Your task to perform on an android device: open app "DuckDuckGo Privacy Browser" (install if not already installed) and go to login screen Image 0: 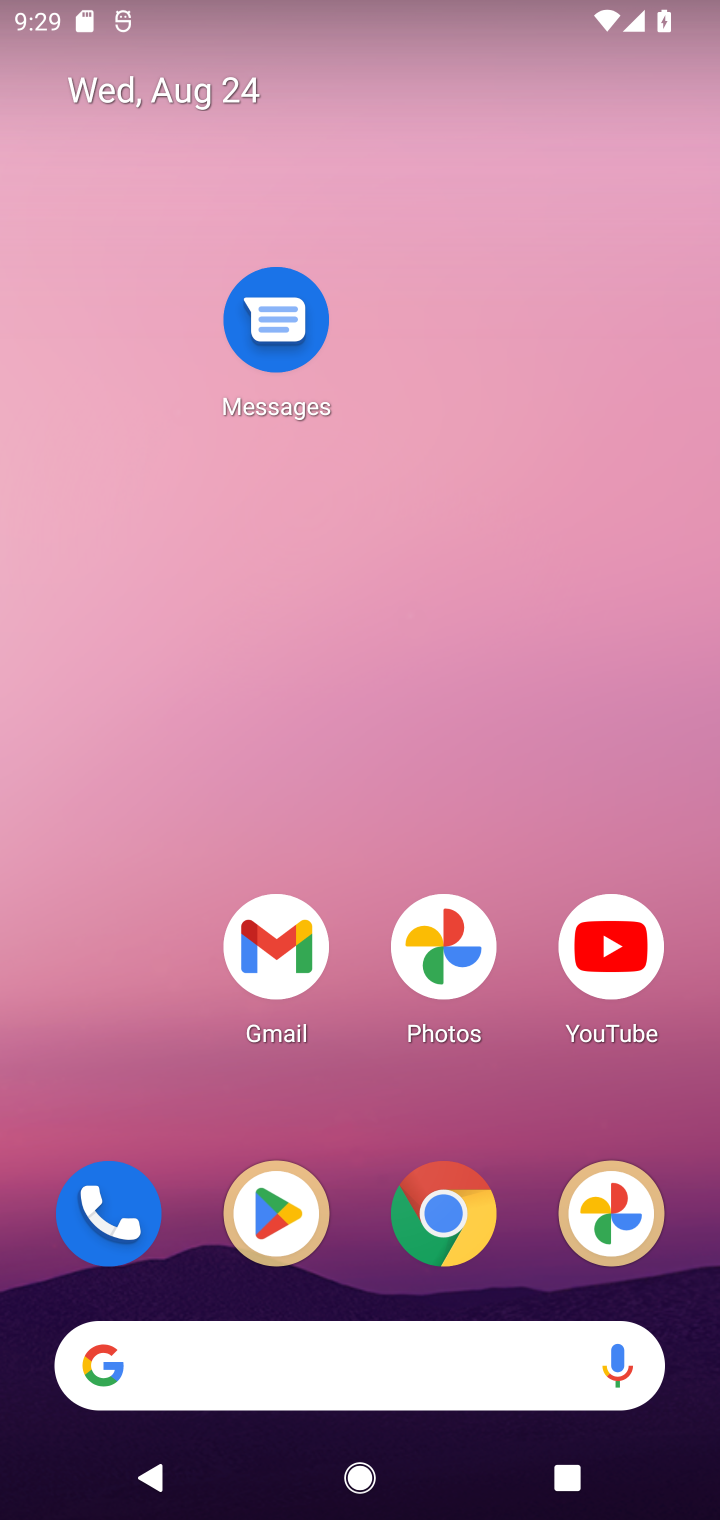
Step 0: click (254, 1208)
Your task to perform on an android device: open app "DuckDuckGo Privacy Browser" (install if not already installed) and go to login screen Image 1: 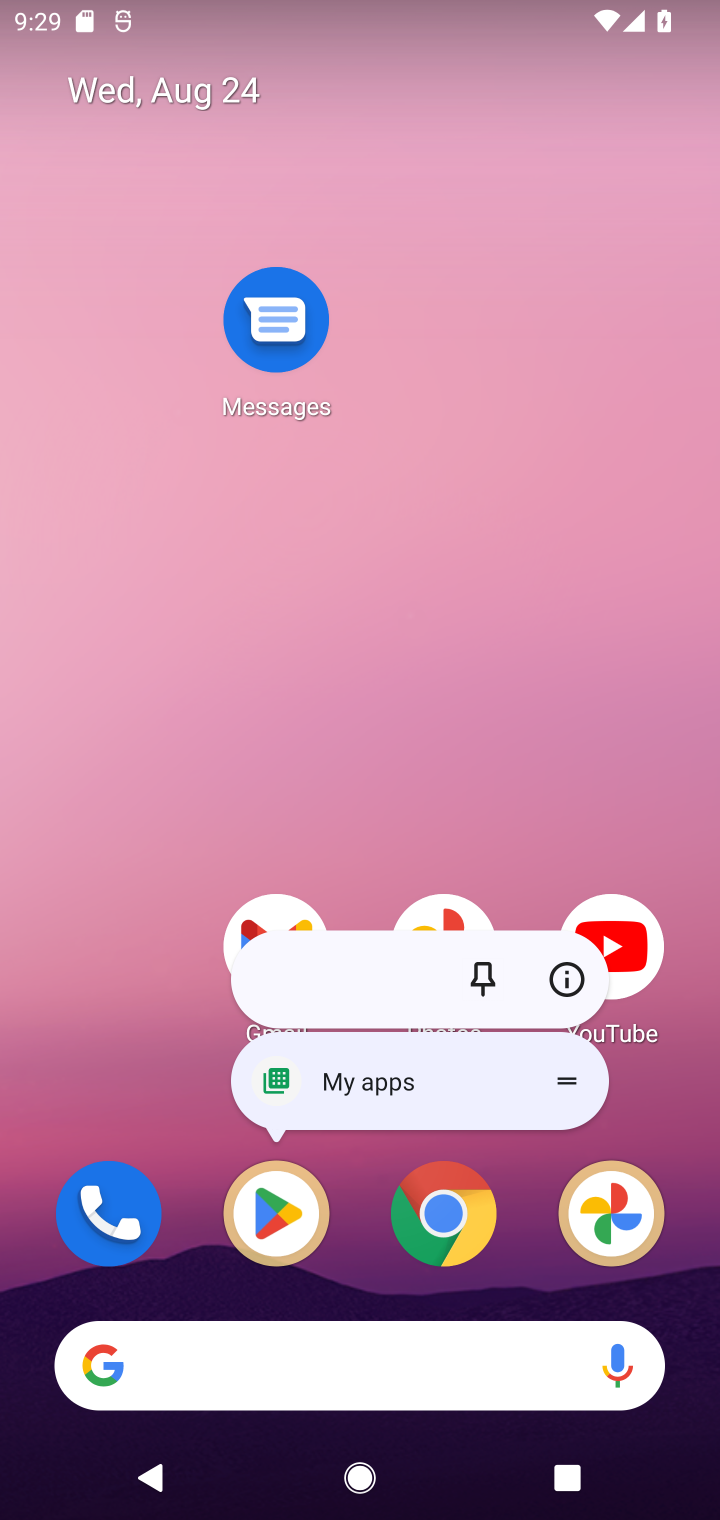
Step 1: click (266, 1198)
Your task to perform on an android device: open app "DuckDuckGo Privacy Browser" (install if not already installed) and go to login screen Image 2: 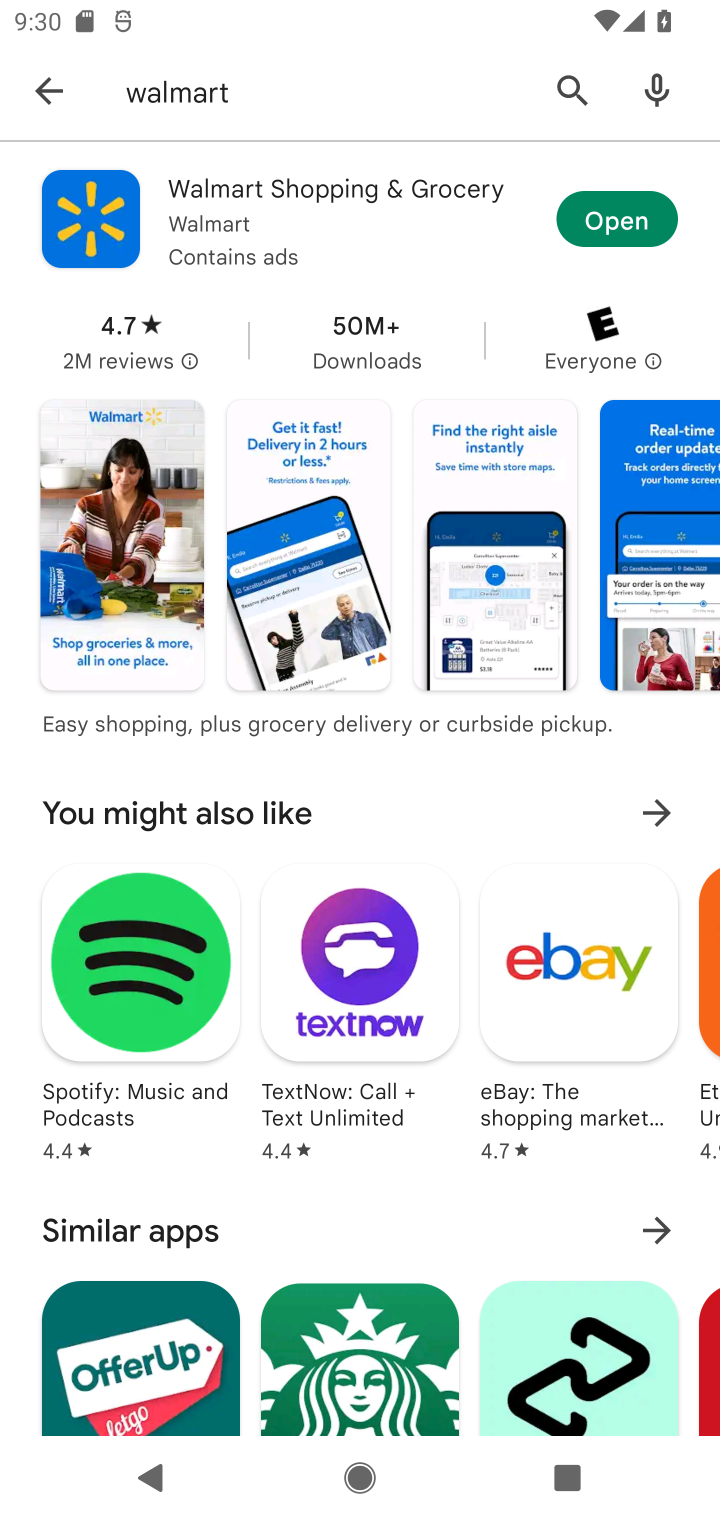
Step 2: click (294, 88)
Your task to perform on an android device: open app "DuckDuckGo Privacy Browser" (install if not already installed) and go to login screen Image 3: 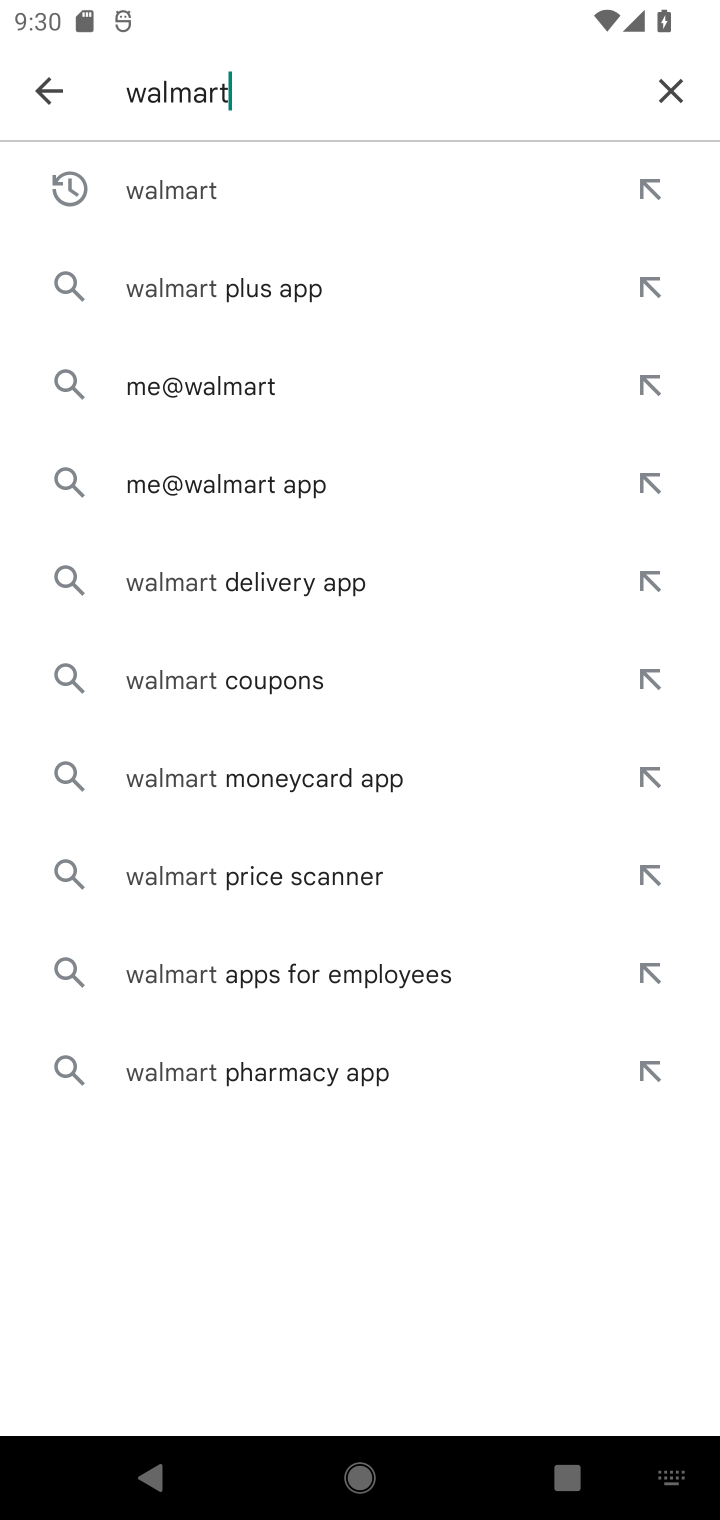
Step 3: click (664, 78)
Your task to perform on an android device: open app "DuckDuckGo Privacy Browser" (install if not already installed) and go to login screen Image 4: 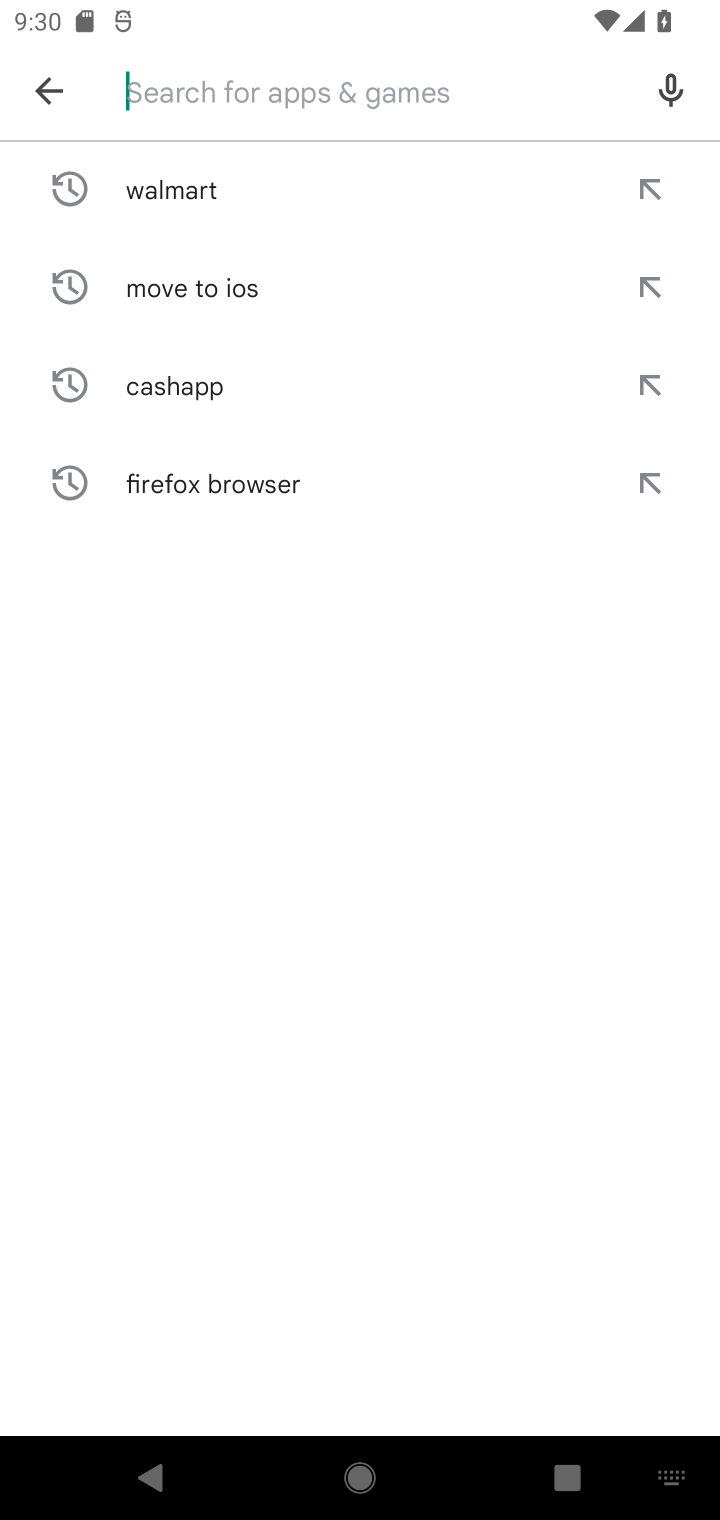
Step 4: type "duckduckgo"
Your task to perform on an android device: open app "DuckDuckGo Privacy Browser" (install if not already installed) and go to login screen Image 5: 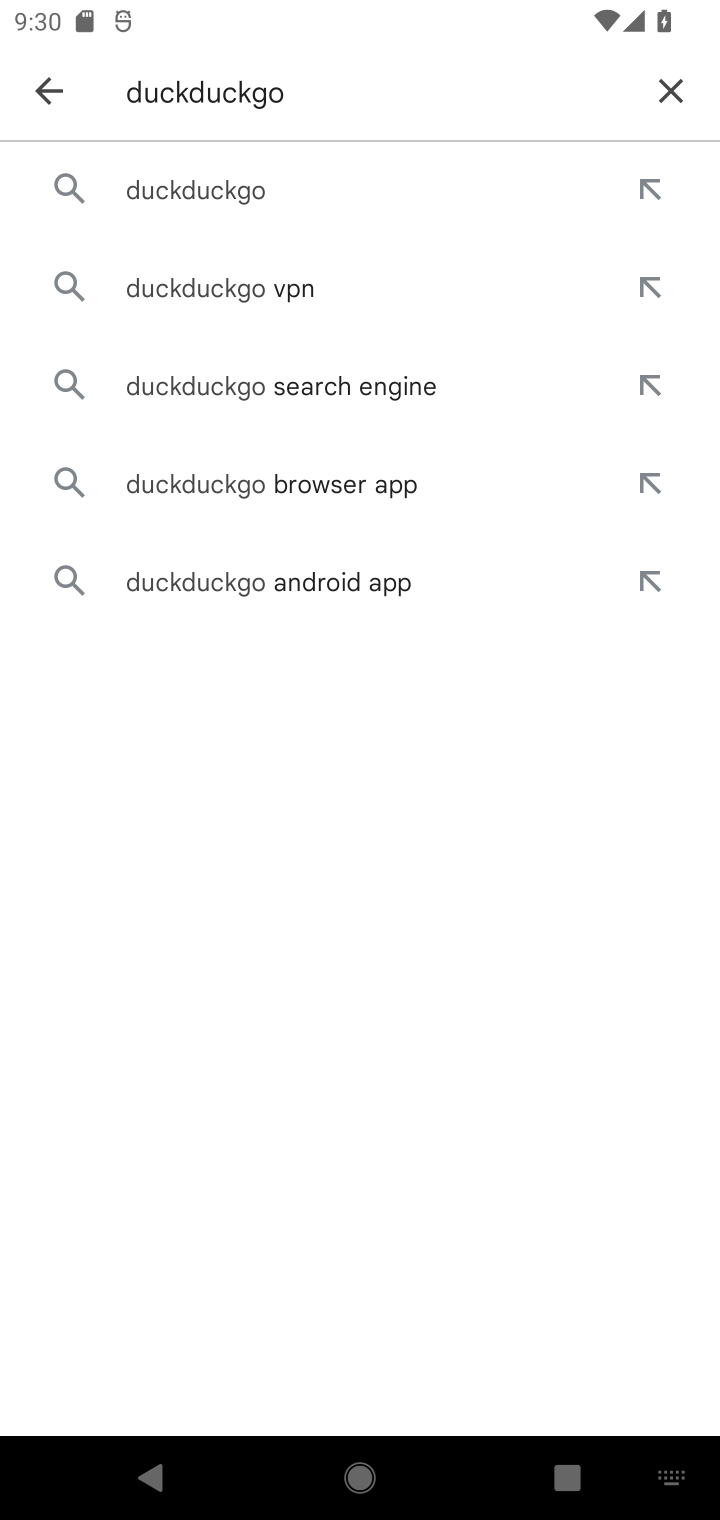
Step 5: click (211, 193)
Your task to perform on an android device: open app "DuckDuckGo Privacy Browser" (install if not already installed) and go to login screen Image 6: 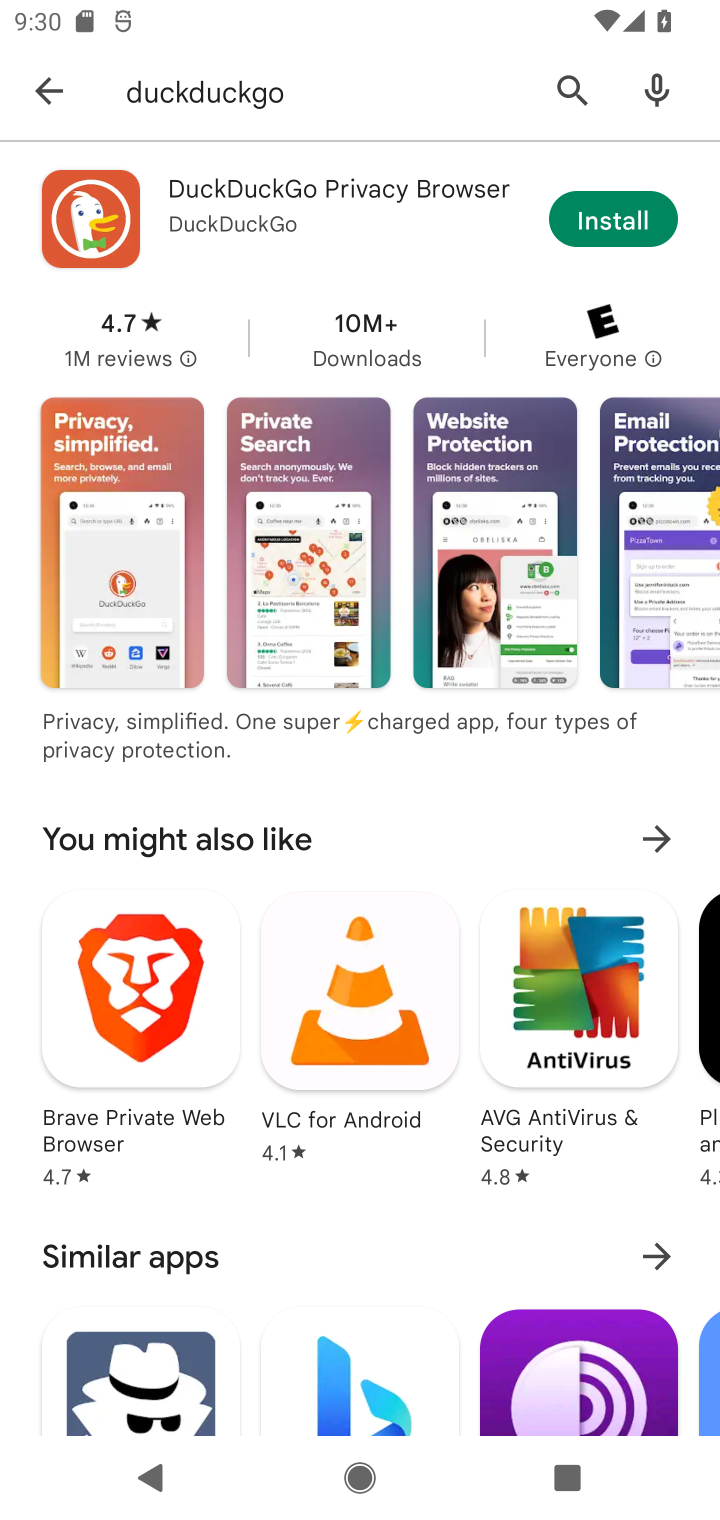
Step 6: click (626, 215)
Your task to perform on an android device: open app "DuckDuckGo Privacy Browser" (install if not already installed) and go to login screen Image 7: 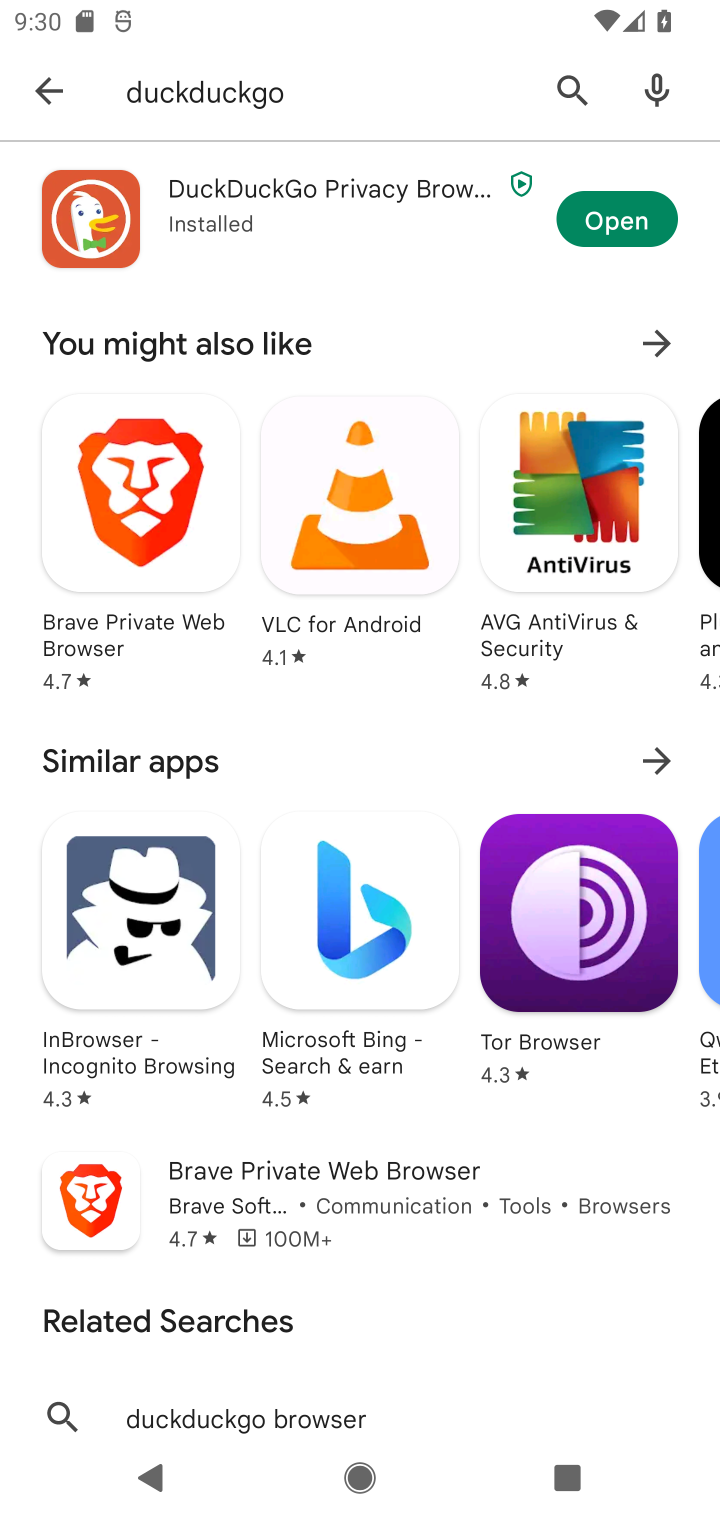
Step 7: click (620, 208)
Your task to perform on an android device: open app "DuckDuckGo Privacy Browser" (install if not already installed) and go to login screen Image 8: 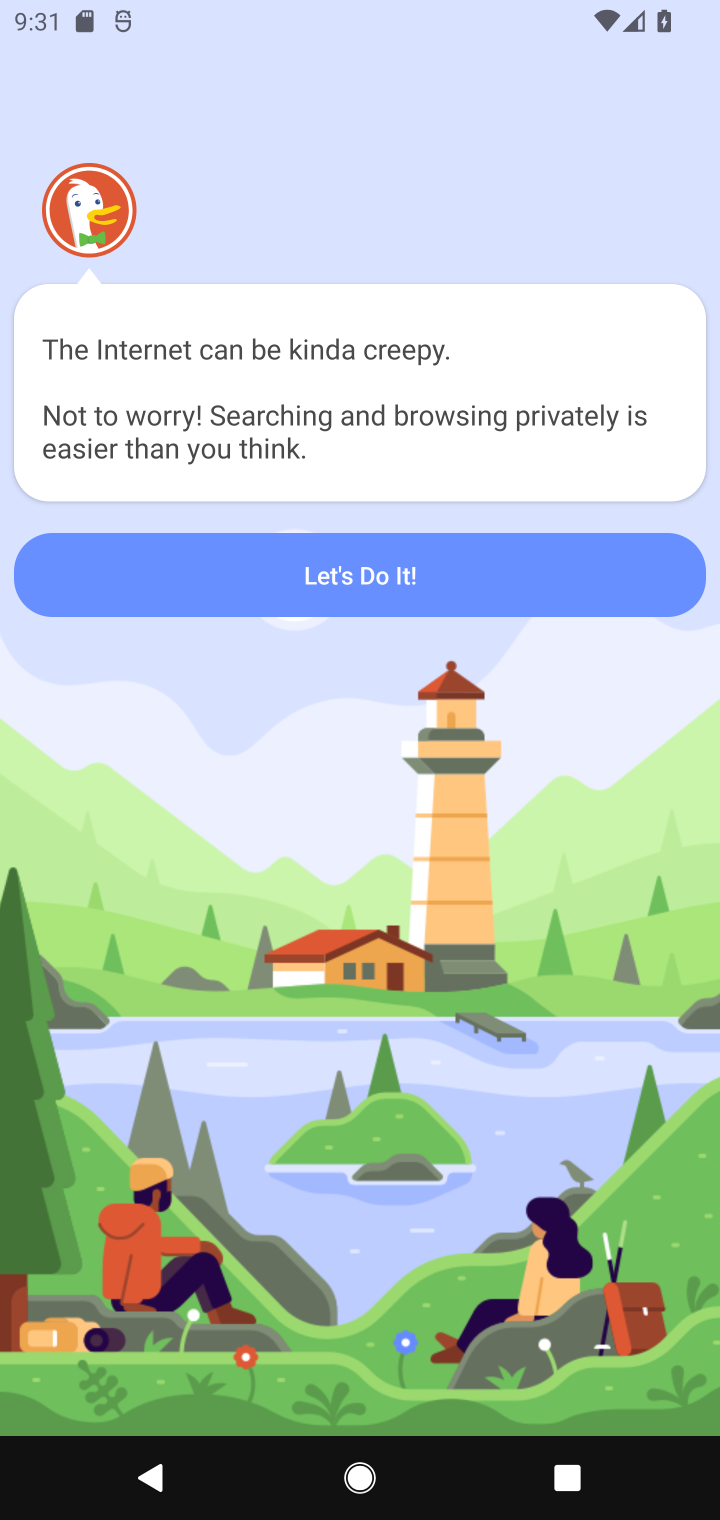
Step 8: task complete